Your task to perform on an android device: show emergency info Image 0: 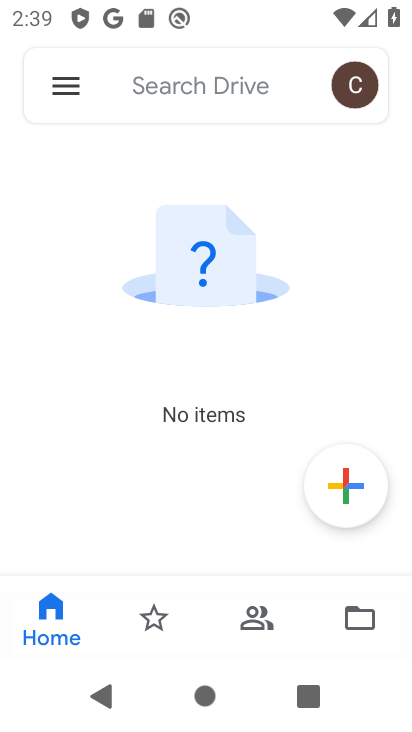
Step 0: press back button
Your task to perform on an android device: show emergency info Image 1: 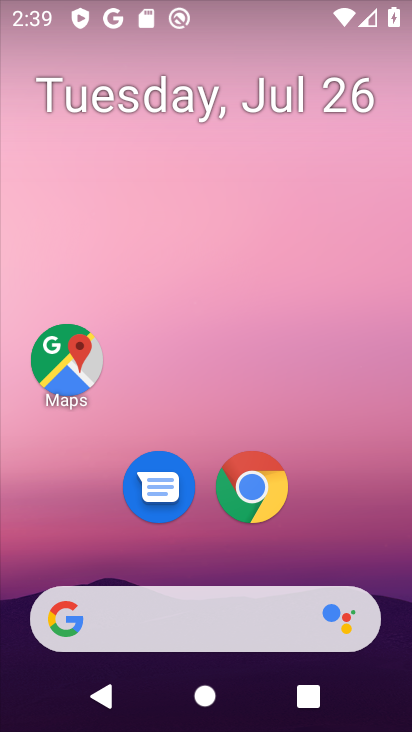
Step 1: drag from (96, 550) to (171, 36)
Your task to perform on an android device: show emergency info Image 2: 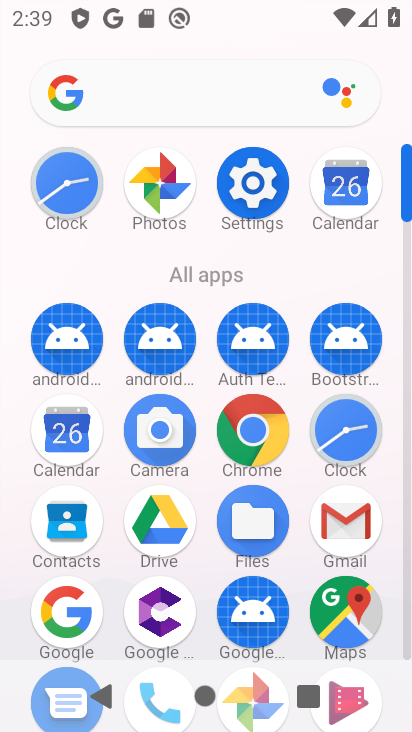
Step 2: click (267, 178)
Your task to perform on an android device: show emergency info Image 3: 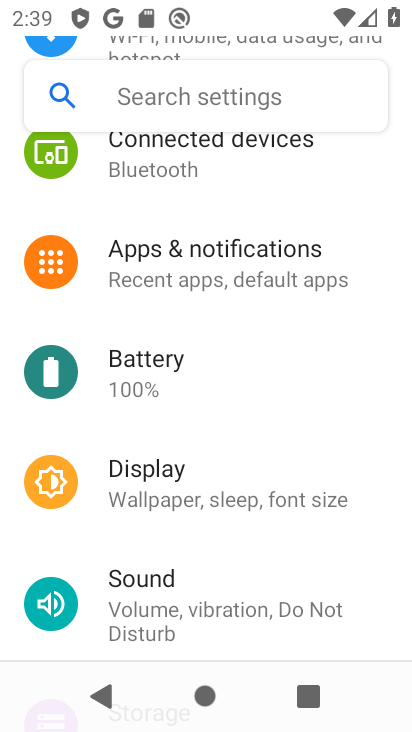
Step 3: drag from (162, 175) to (317, 56)
Your task to perform on an android device: show emergency info Image 4: 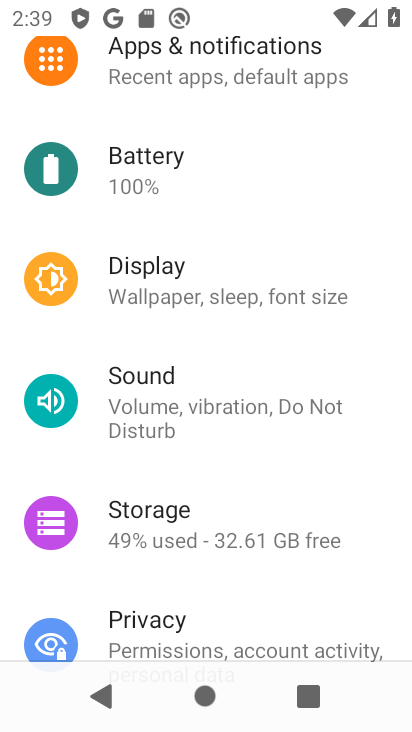
Step 4: drag from (149, 604) to (286, 32)
Your task to perform on an android device: show emergency info Image 5: 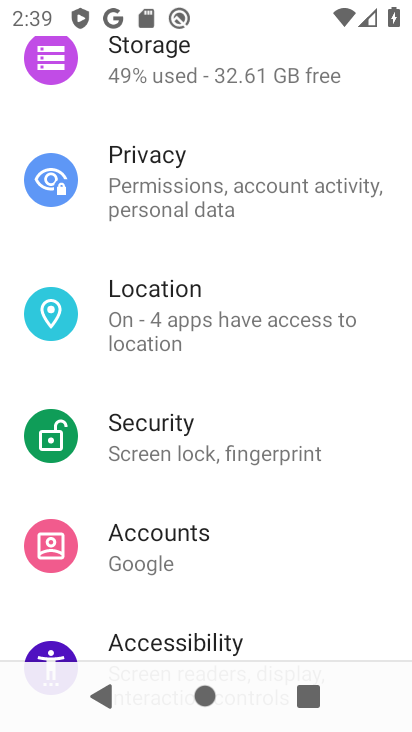
Step 5: drag from (163, 584) to (301, 0)
Your task to perform on an android device: show emergency info Image 6: 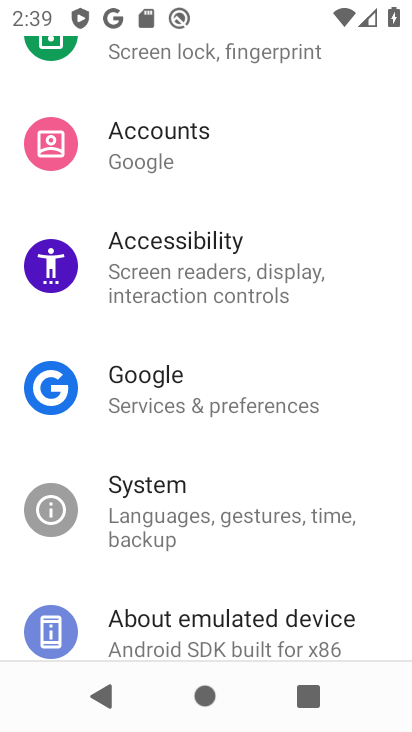
Step 6: drag from (186, 614) to (287, 17)
Your task to perform on an android device: show emergency info Image 7: 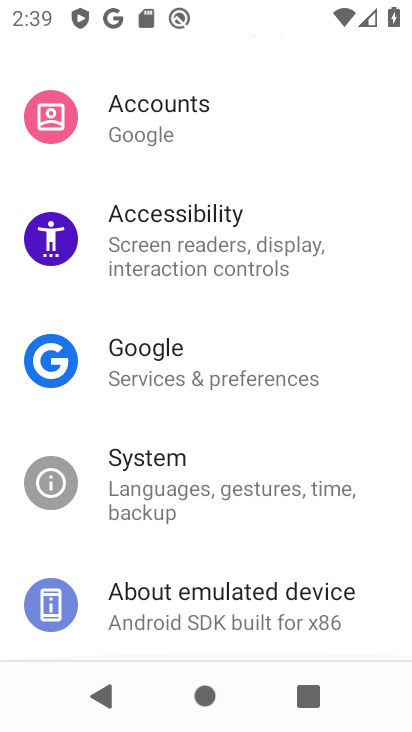
Step 7: click (165, 590)
Your task to perform on an android device: show emergency info Image 8: 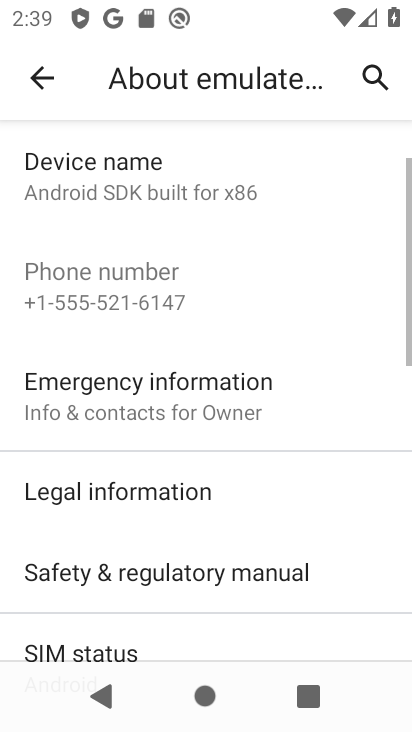
Step 8: click (131, 393)
Your task to perform on an android device: show emergency info Image 9: 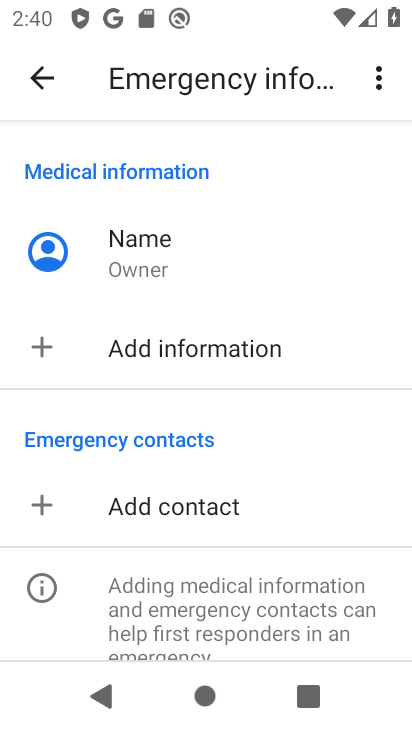
Step 9: task complete